Your task to perform on an android device: toggle airplane mode Image 0: 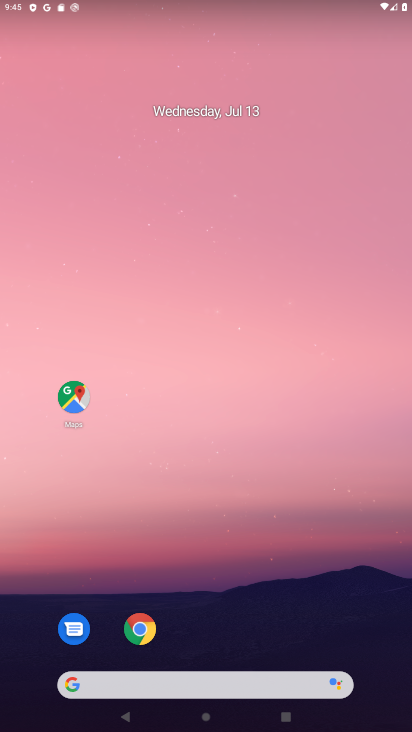
Step 0: drag from (235, 641) to (215, 182)
Your task to perform on an android device: toggle airplane mode Image 1: 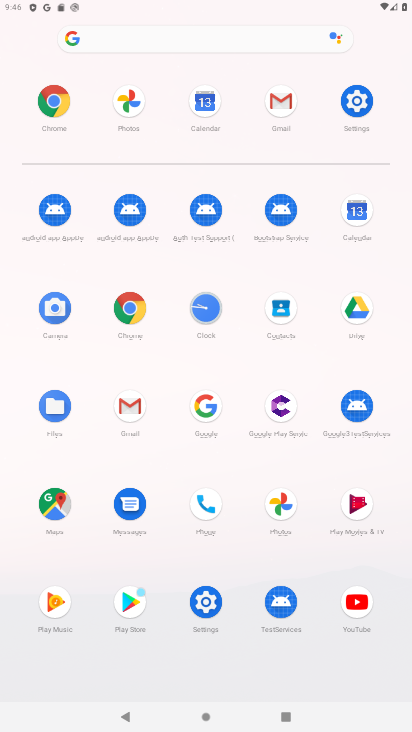
Step 1: click (197, 620)
Your task to perform on an android device: toggle airplane mode Image 2: 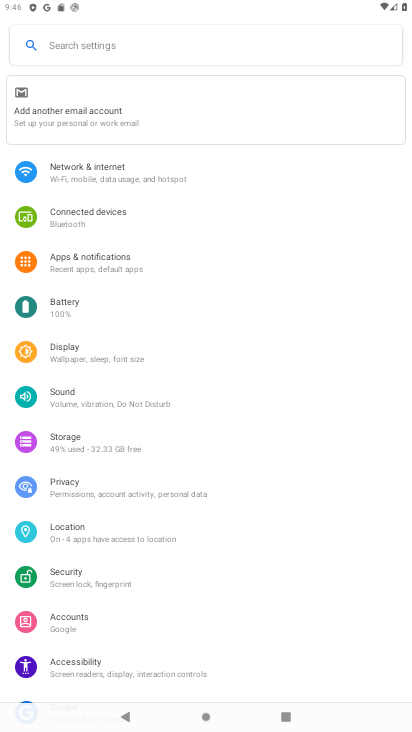
Step 2: click (134, 190)
Your task to perform on an android device: toggle airplane mode Image 3: 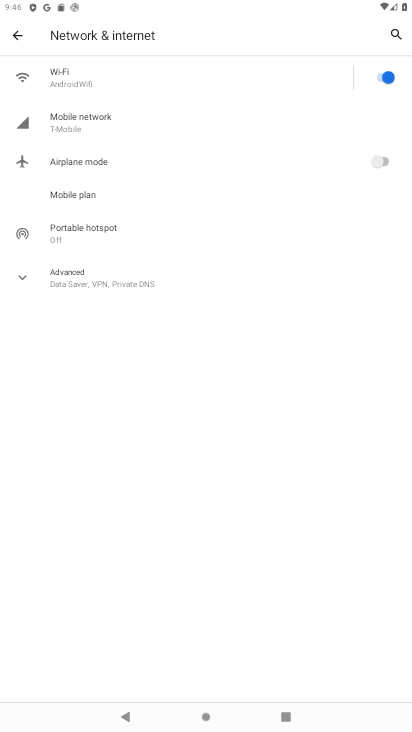
Step 3: click (364, 168)
Your task to perform on an android device: toggle airplane mode Image 4: 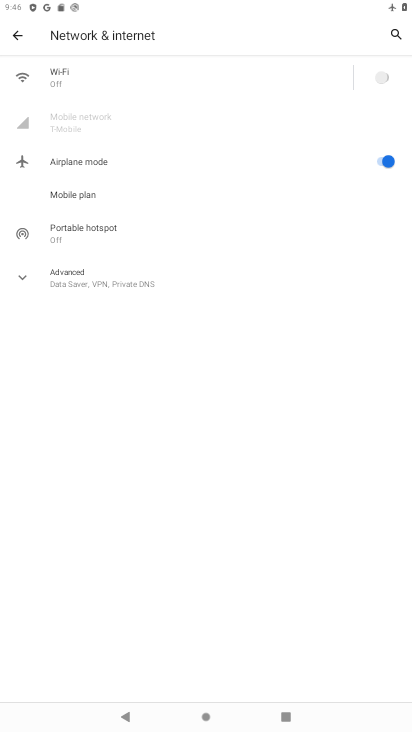
Step 4: task complete